Your task to perform on an android device: Go to Yahoo.com Image 0: 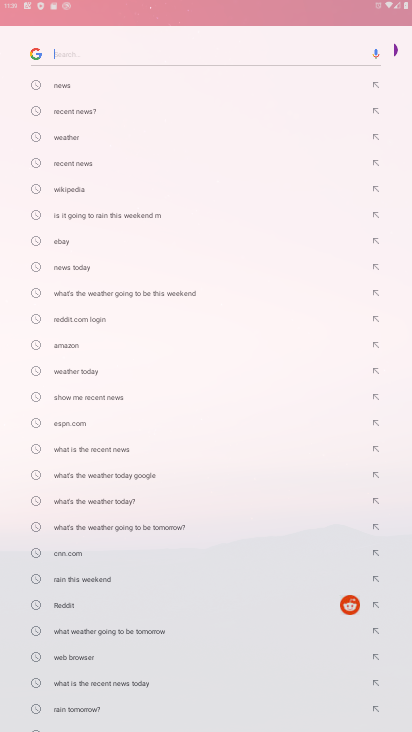
Step 0: click (289, 96)
Your task to perform on an android device: Go to Yahoo.com Image 1: 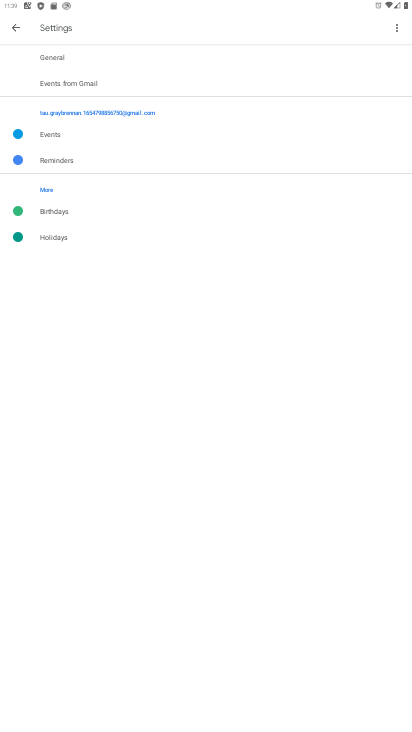
Step 1: press home button
Your task to perform on an android device: Go to Yahoo.com Image 2: 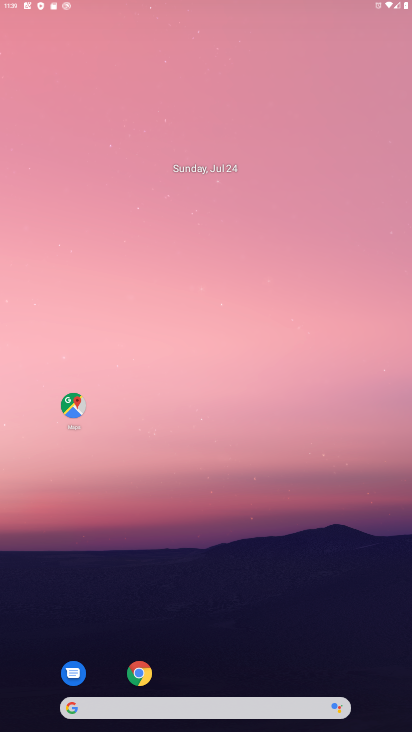
Step 2: drag from (213, 561) to (227, 145)
Your task to perform on an android device: Go to Yahoo.com Image 3: 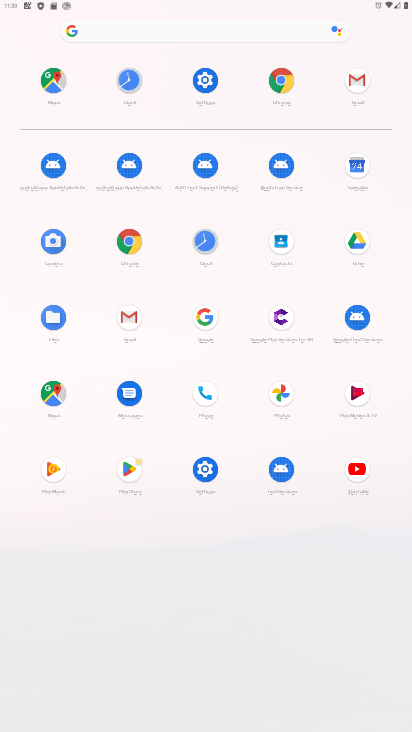
Step 3: click (282, 80)
Your task to perform on an android device: Go to Yahoo.com Image 4: 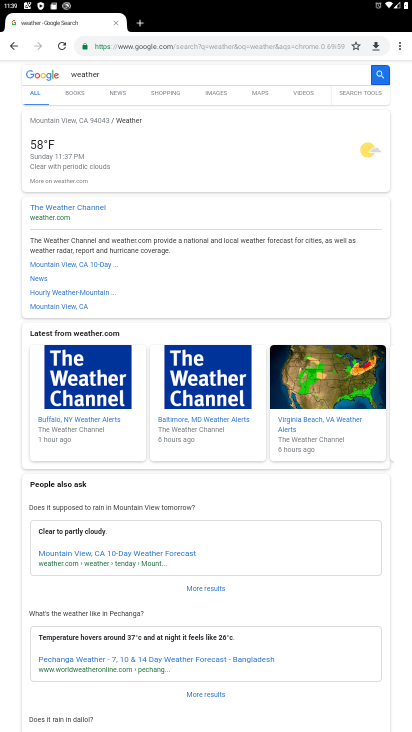
Step 4: click (278, 42)
Your task to perform on an android device: Go to Yahoo.com Image 5: 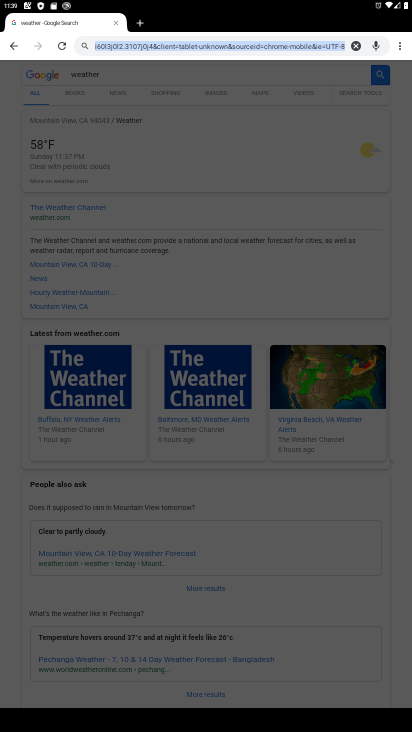
Step 5: type "yahoo.com"
Your task to perform on an android device: Go to Yahoo.com Image 6: 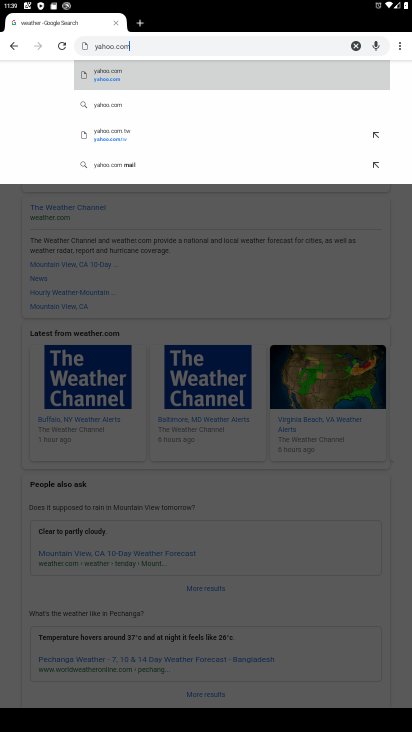
Step 6: click (110, 75)
Your task to perform on an android device: Go to Yahoo.com Image 7: 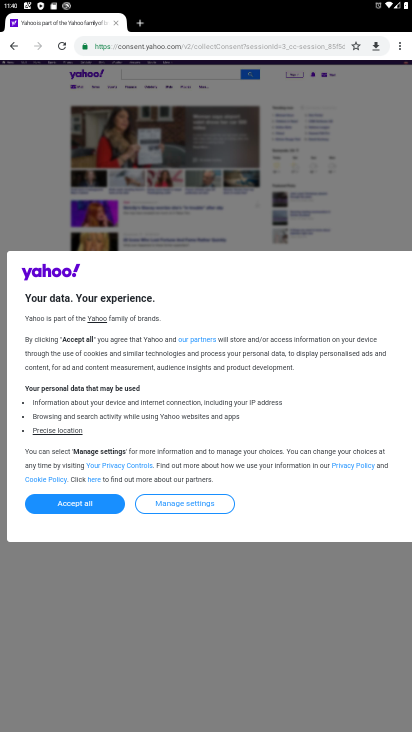
Step 7: task complete